Your task to perform on an android device: turn on sleep mode Image 0: 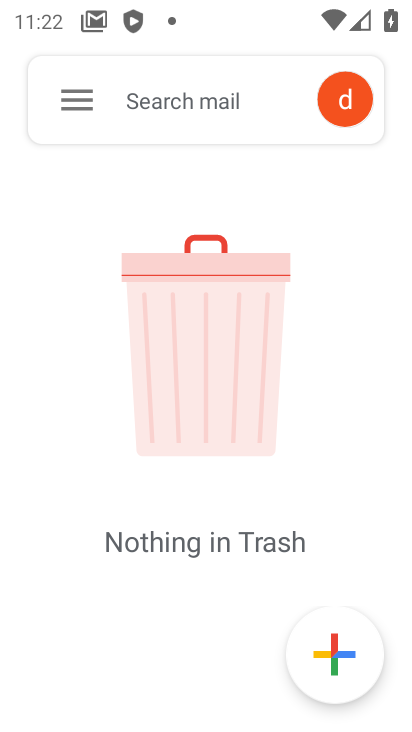
Step 0: press home button
Your task to perform on an android device: turn on sleep mode Image 1: 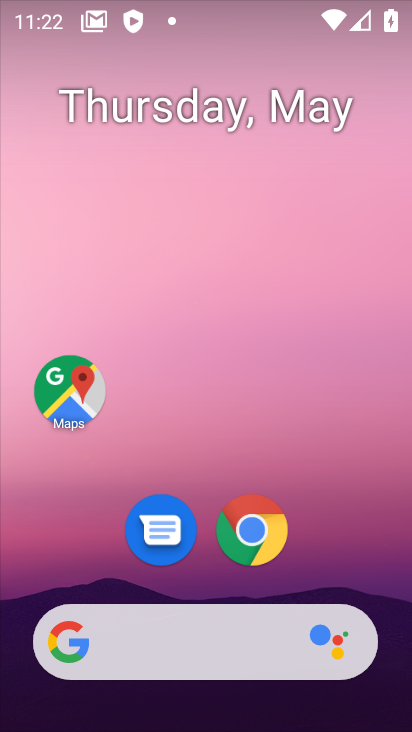
Step 1: drag from (381, 604) to (337, 200)
Your task to perform on an android device: turn on sleep mode Image 2: 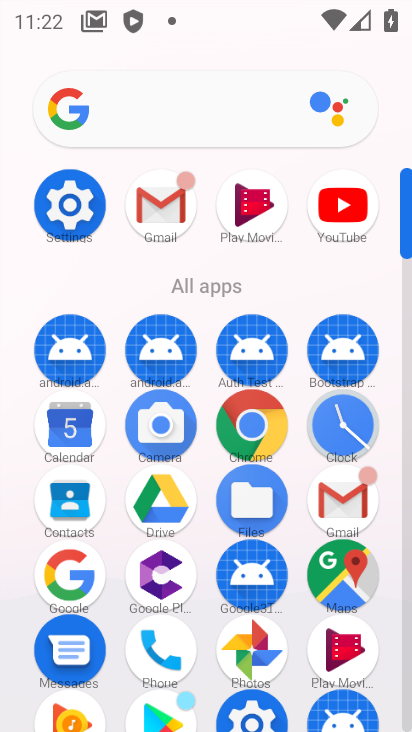
Step 2: click (82, 198)
Your task to perform on an android device: turn on sleep mode Image 3: 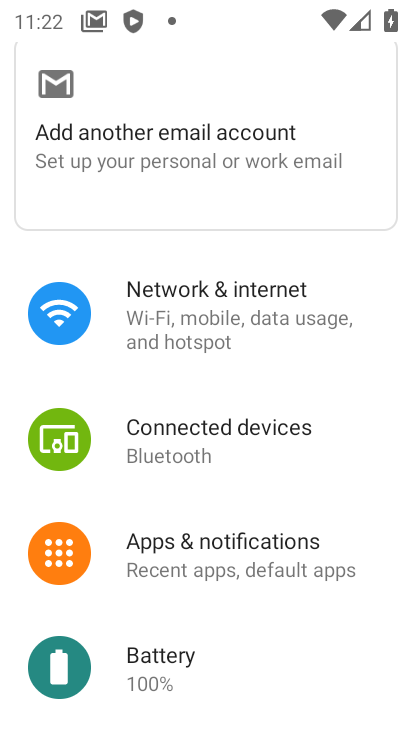
Step 3: drag from (278, 538) to (240, 366)
Your task to perform on an android device: turn on sleep mode Image 4: 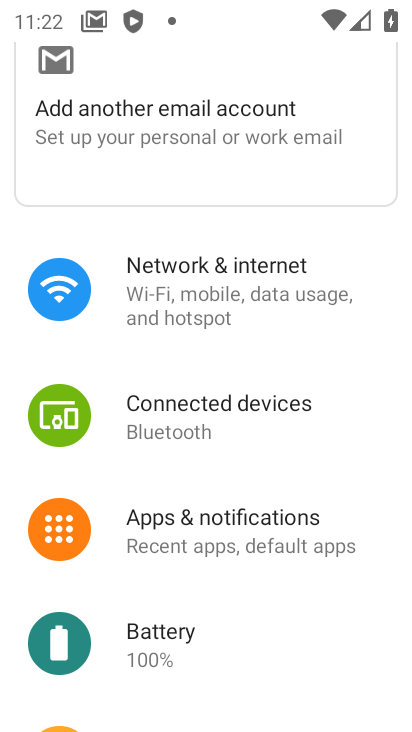
Step 4: drag from (283, 625) to (302, 425)
Your task to perform on an android device: turn on sleep mode Image 5: 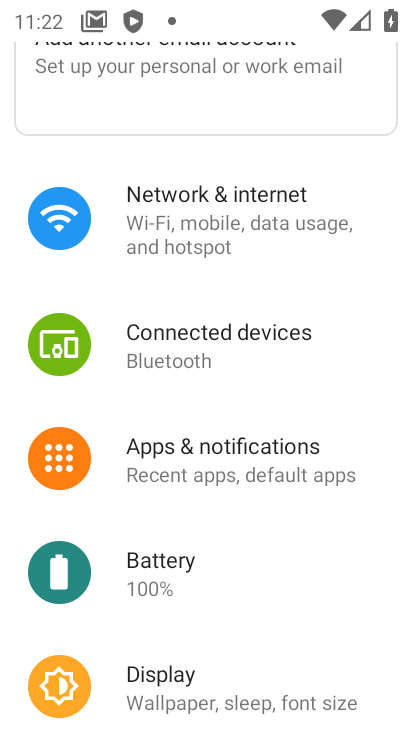
Step 5: drag from (319, 600) to (307, 346)
Your task to perform on an android device: turn on sleep mode Image 6: 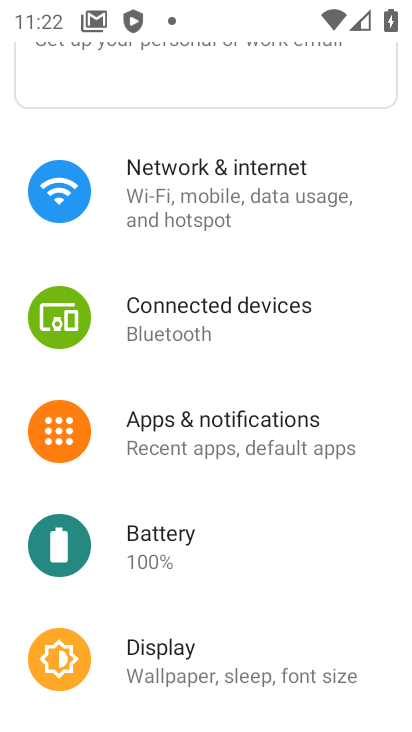
Step 6: click (200, 656)
Your task to perform on an android device: turn on sleep mode Image 7: 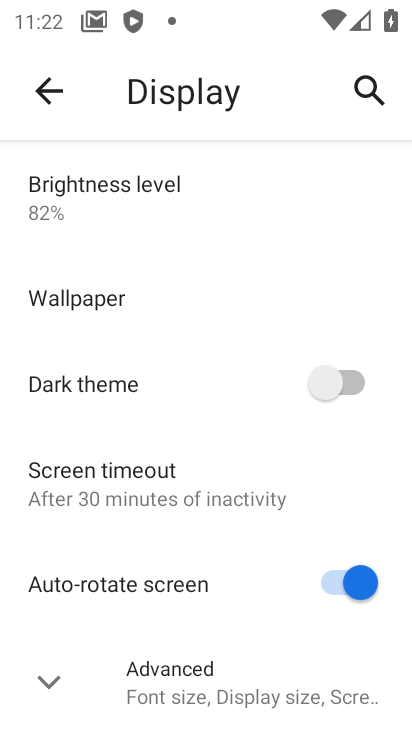
Step 7: click (143, 481)
Your task to perform on an android device: turn on sleep mode Image 8: 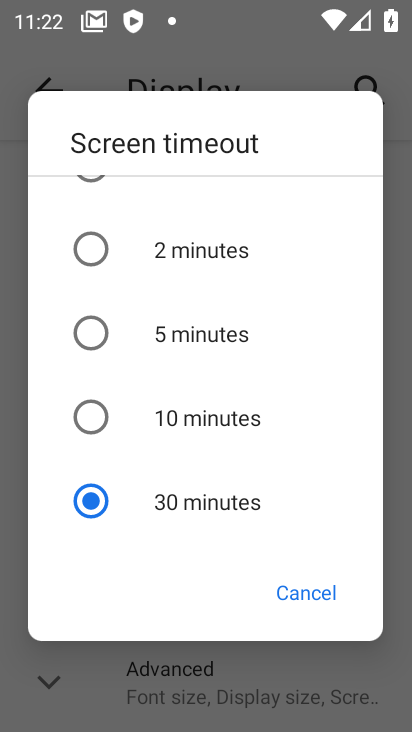
Step 8: task complete